Your task to perform on an android device: Open Reddit.com Image 0: 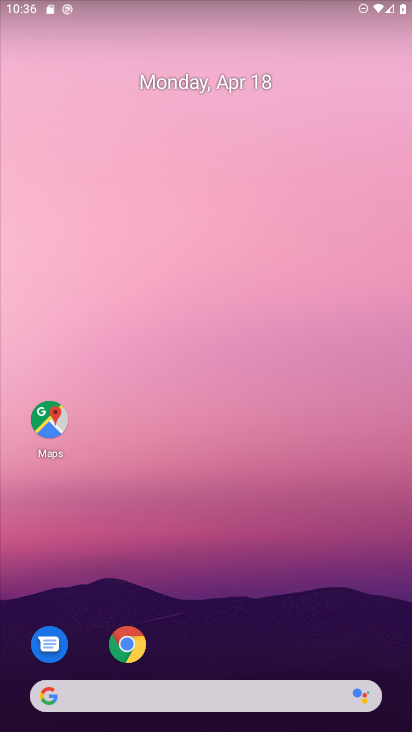
Step 0: click (132, 687)
Your task to perform on an android device: Open Reddit.com Image 1: 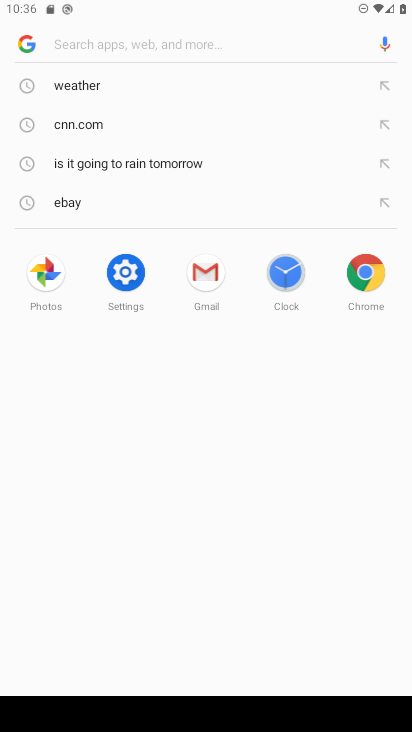
Step 1: type "Reddit.com"
Your task to perform on an android device: Open Reddit.com Image 2: 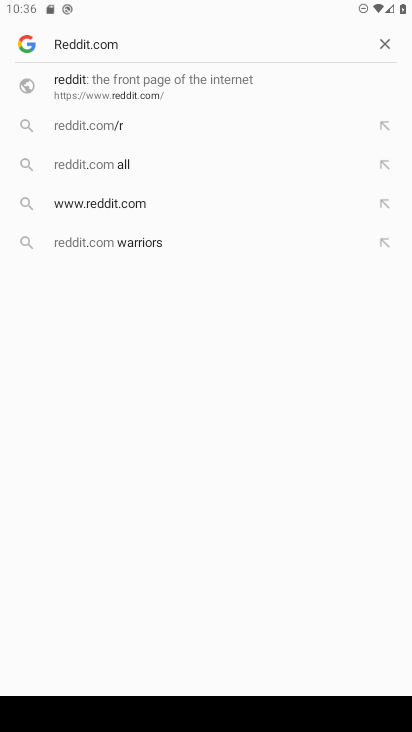
Step 2: click (128, 105)
Your task to perform on an android device: Open Reddit.com Image 3: 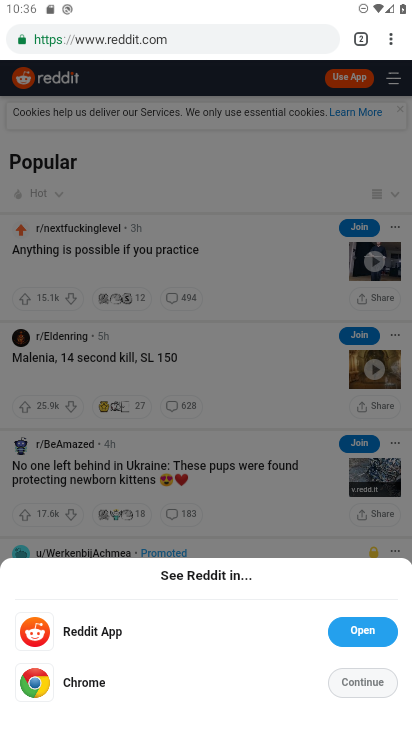
Step 3: task complete